Your task to perform on an android device: Open Reddit.com Image 0: 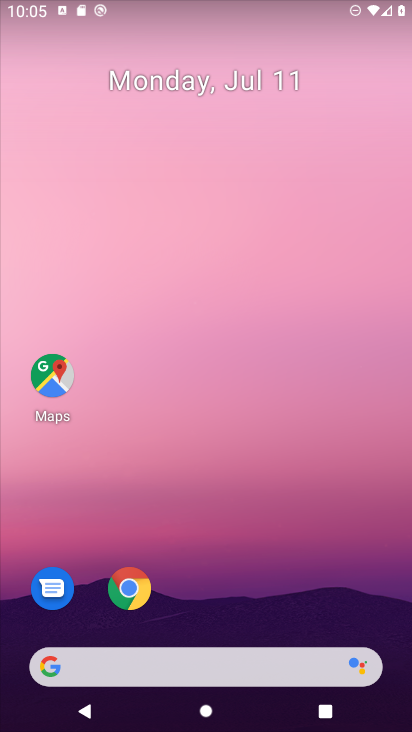
Step 0: drag from (387, 653) to (183, 8)
Your task to perform on an android device: Open Reddit.com Image 1: 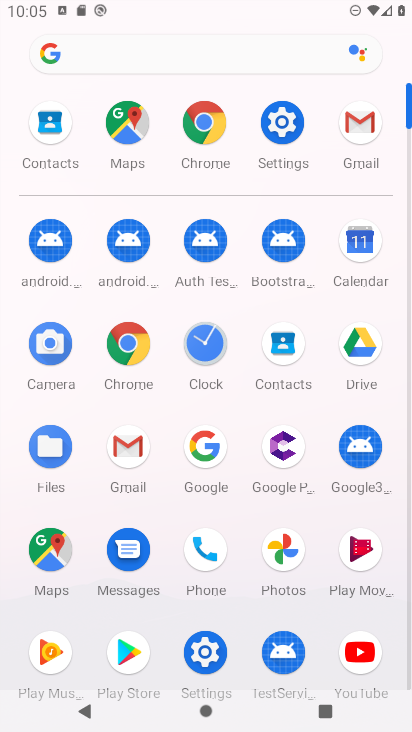
Step 1: click (202, 446)
Your task to perform on an android device: Open Reddit.com Image 2: 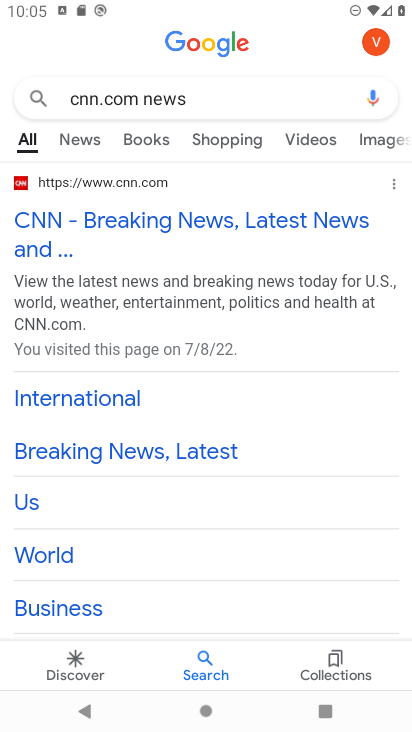
Step 2: press back button
Your task to perform on an android device: Open Reddit.com Image 3: 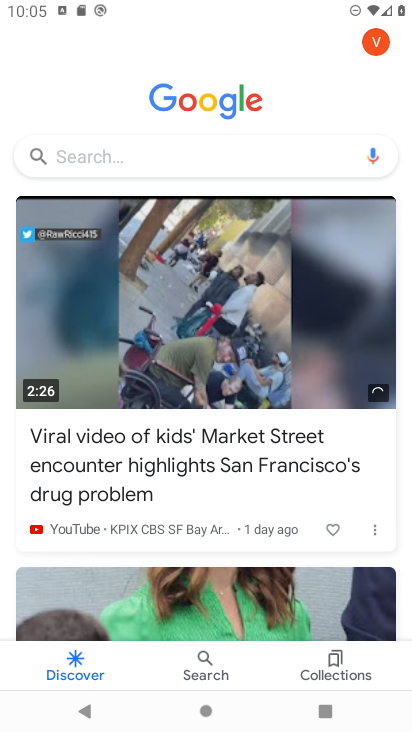
Step 3: click (133, 150)
Your task to perform on an android device: Open Reddit.com Image 4: 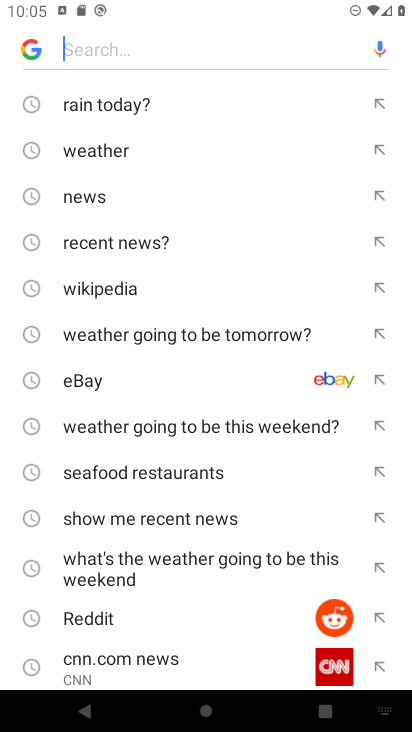
Step 4: click (139, 622)
Your task to perform on an android device: Open Reddit.com Image 5: 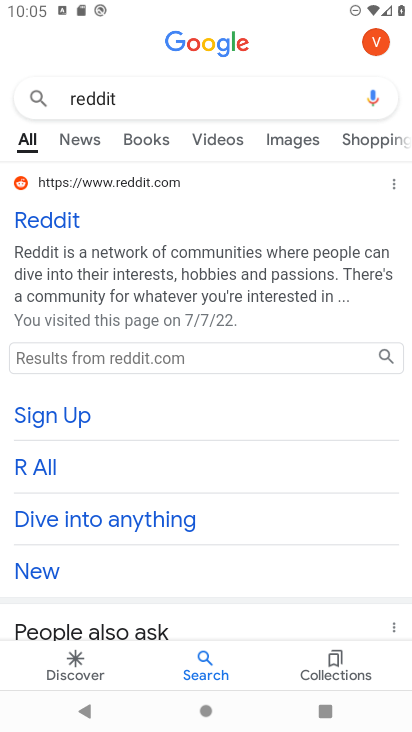
Step 5: task complete